Your task to perform on an android device: Open notification settings Image 0: 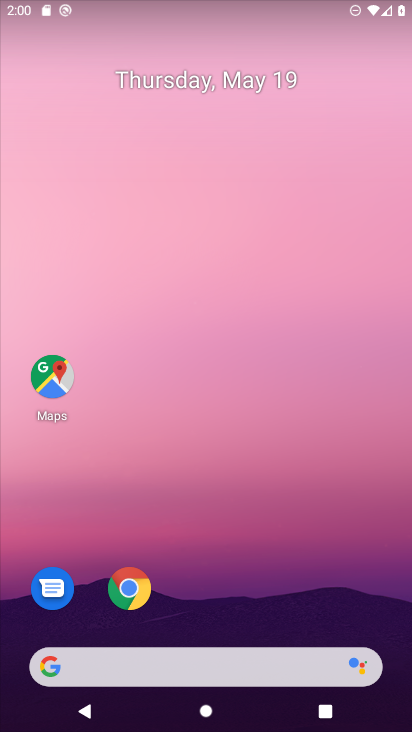
Step 0: drag from (330, 518) to (234, 3)
Your task to perform on an android device: Open notification settings Image 1: 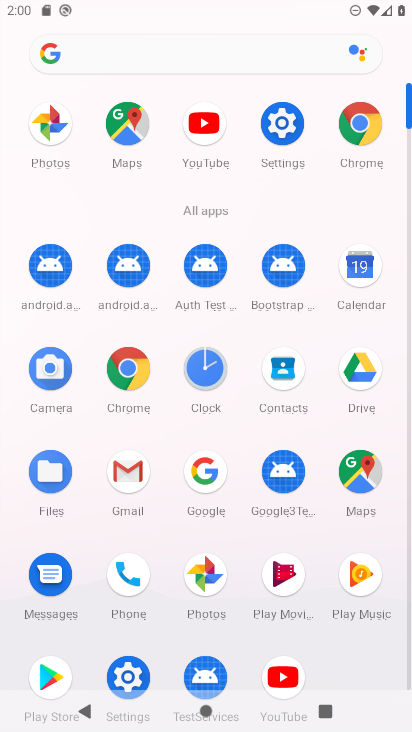
Step 1: click (279, 122)
Your task to perform on an android device: Open notification settings Image 2: 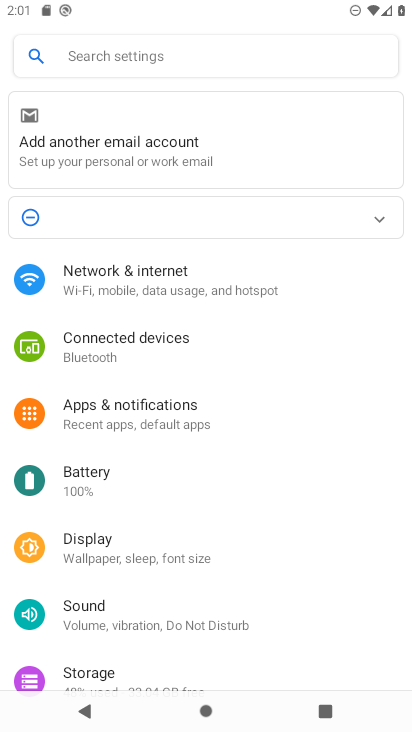
Step 2: click (120, 406)
Your task to perform on an android device: Open notification settings Image 3: 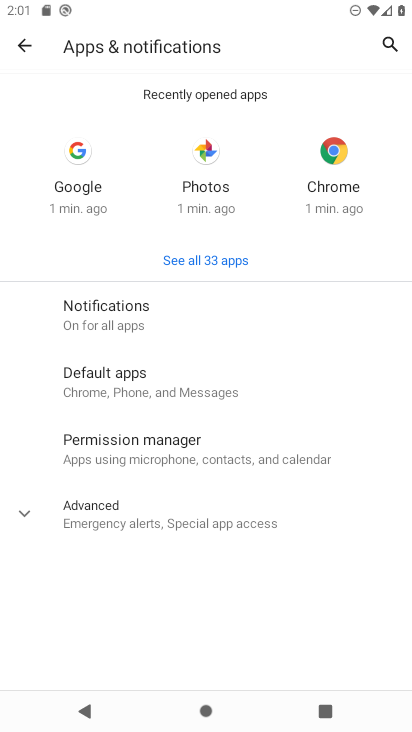
Step 3: task complete